Your task to perform on an android device: turn on showing notifications on the lock screen Image 0: 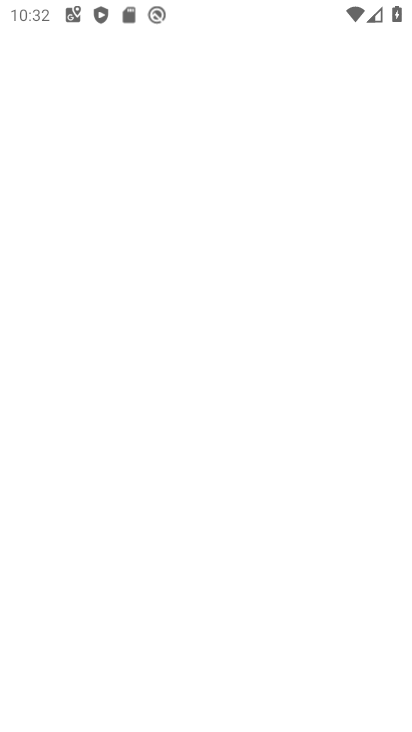
Step 0: drag from (213, 617) to (251, 361)
Your task to perform on an android device: turn on showing notifications on the lock screen Image 1: 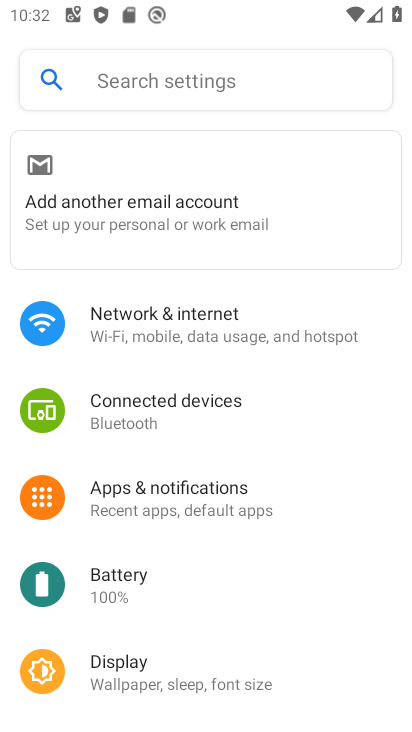
Step 1: press home button
Your task to perform on an android device: turn on showing notifications on the lock screen Image 2: 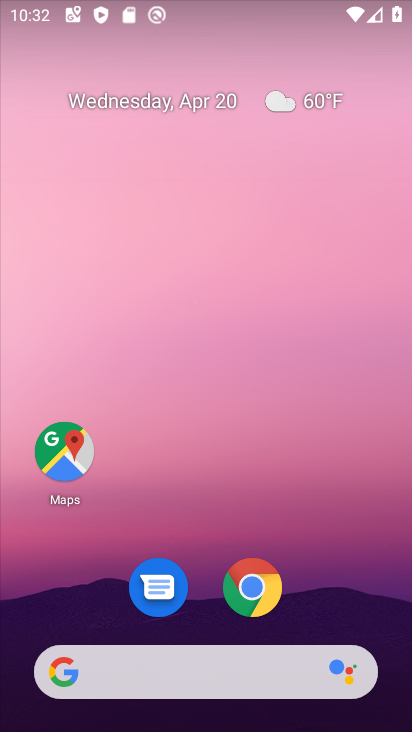
Step 2: drag from (212, 609) to (219, 133)
Your task to perform on an android device: turn on showing notifications on the lock screen Image 3: 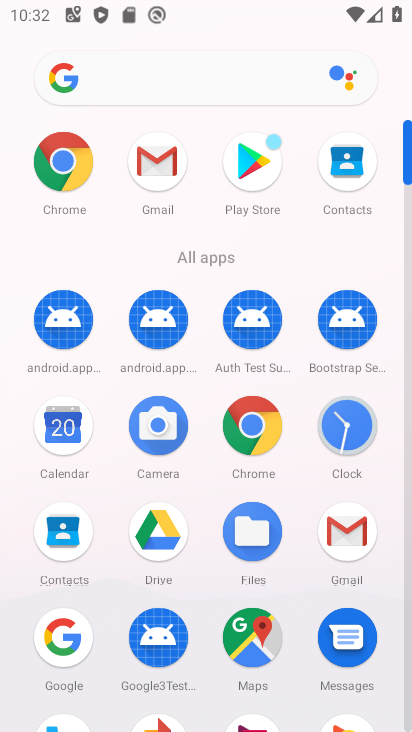
Step 3: drag from (208, 487) to (232, 2)
Your task to perform on an android device: turn on showing notifications on the lock screen Image 4: 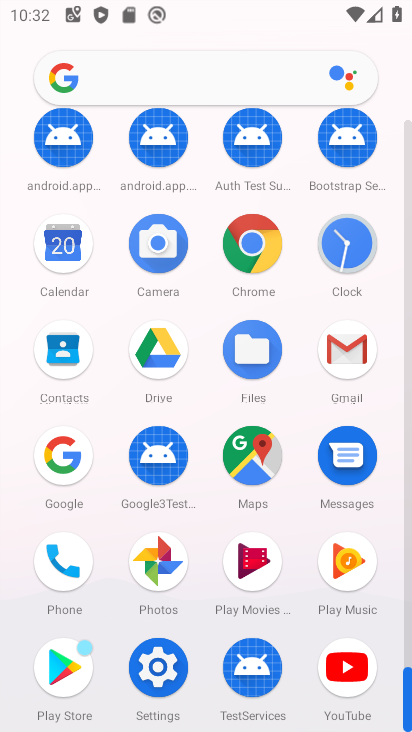
Step 4: click (155, 655)
Your task to perform on an android device: turn on showing notifications on the lock screen Image 5: 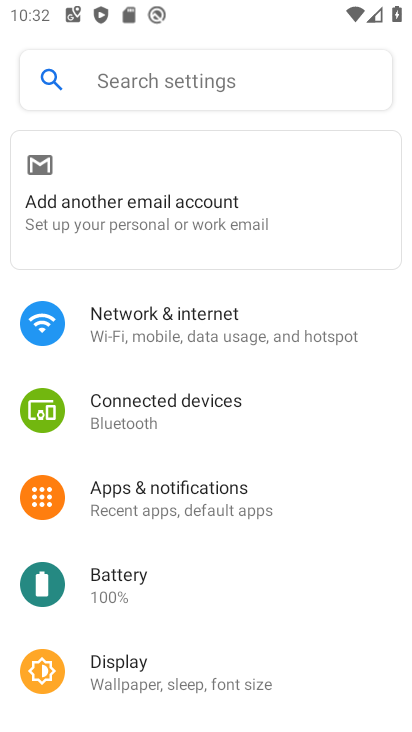
Step 5: click (252, 486)
Your task to perform on an android device: turn on showing notifications on the lock screen Image 6: 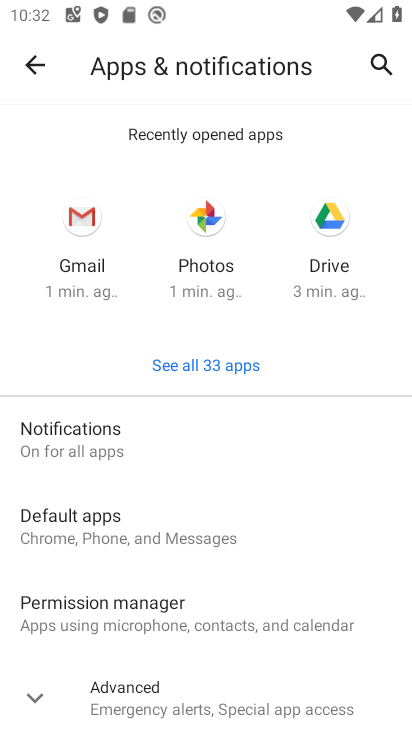
Step 6: click (135, 429)
Your task to perform on an android device: turn on showing notifications on the lock screen Image 7: 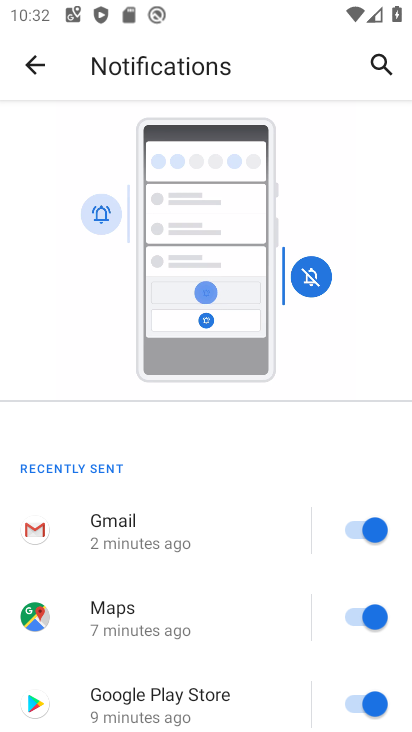
Step 7: drag from (245, 643) to (241, 341)
Your task to perform on an android device: turn on showing notifications on the lock screen Image 8: 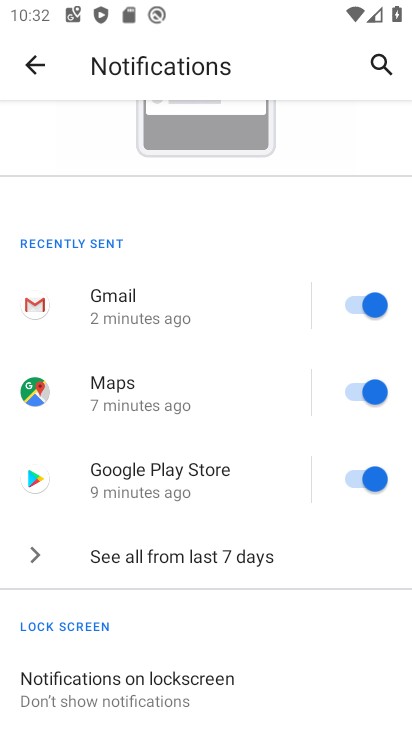
Step 8: click (213, 697)
Your task to perform on an android device: turn on showing notifications on the lock screen Image 9: 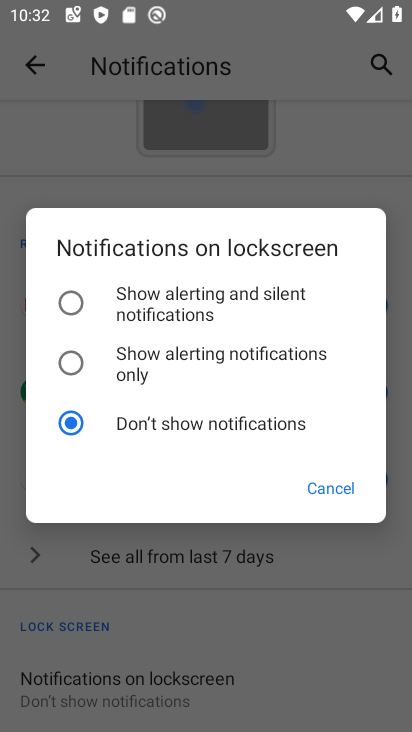
Step 9: click (72, 298)
Your task to perform on an android device: turn on showing notifications on the lock screen Image 10: 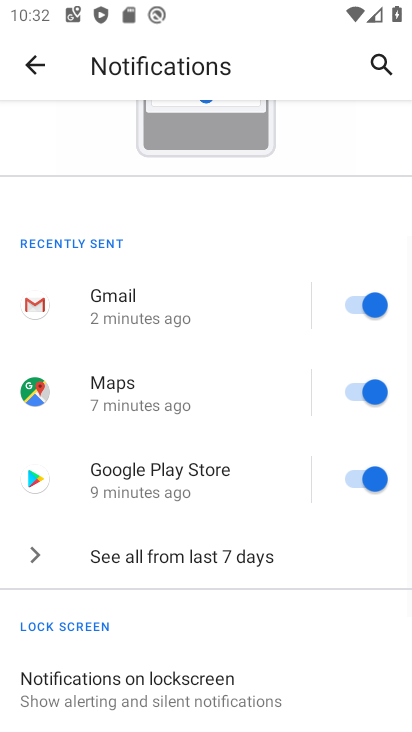
Step 10: task complete